Your task to perform on an android device: Open CNN.com Image 0: 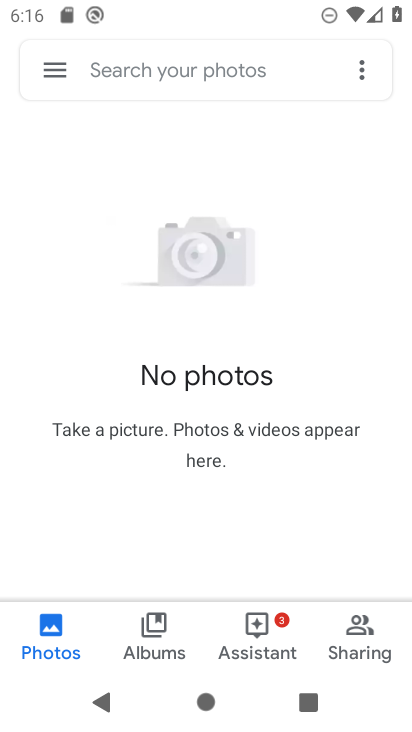
Step 0: press home button
Your task to perform on an android device: Open CNN.com Image 1: 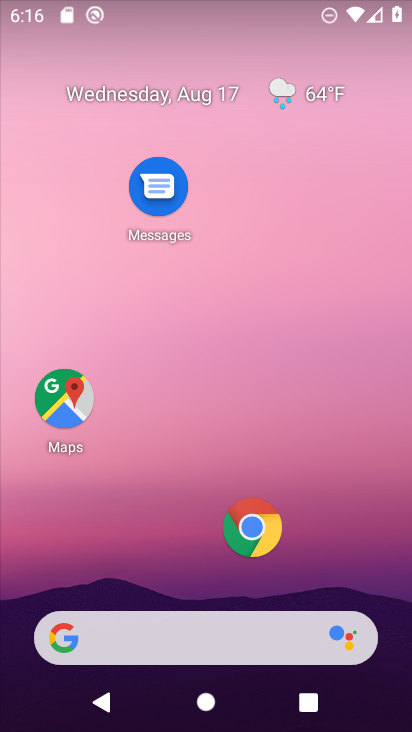
Step 1: drag from (184, 606) to (158, 334)
Your task to perform on an android device: Open CNN.com Image 2: 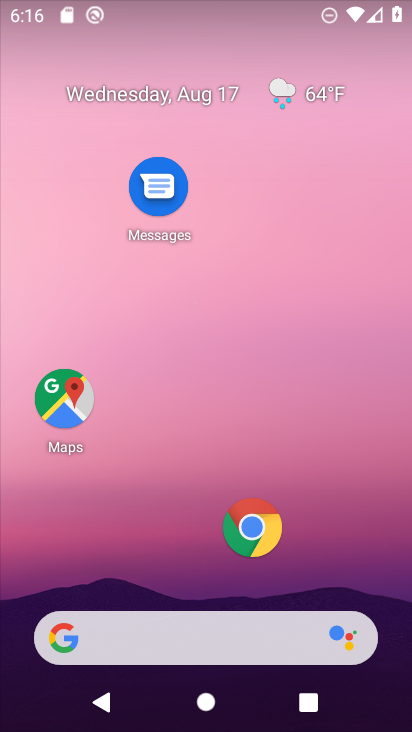
Step 2: drag from (168, 652) to (139, 240)
Your task to perform on an android device: Open CNN.com Image 3: 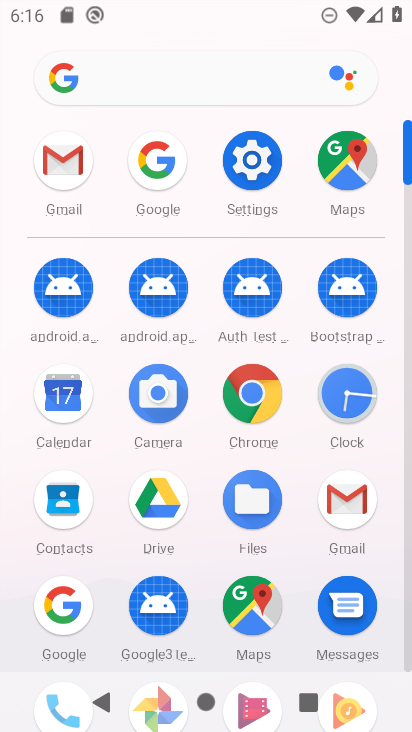
Step 3: click (58, 603)
Your task to perform on an android device: Open CNN.com Image 4: 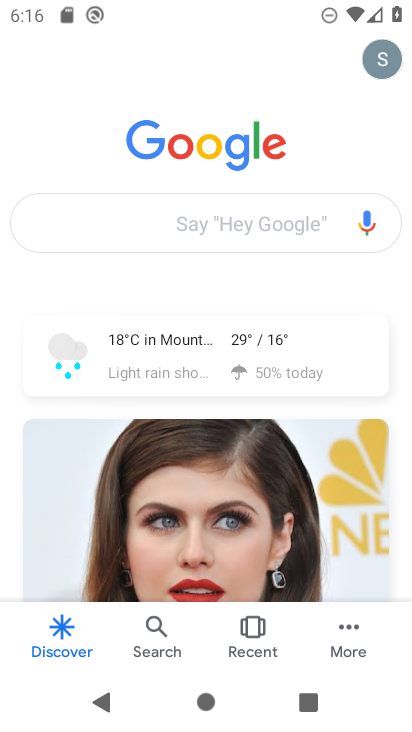
Step 4: click (159, 213)
Your task to perform on an android device: Open CNN.com Image 5: 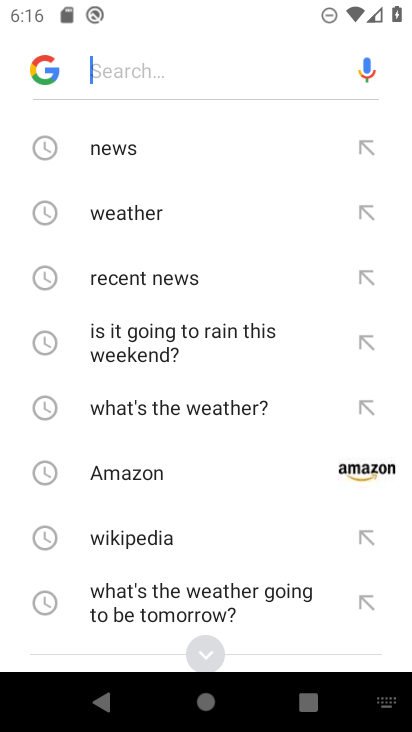
Step 5: drag from (99, 577) to (99, 357)
Your task to perform on an android device: Open CNN.com Image 6: 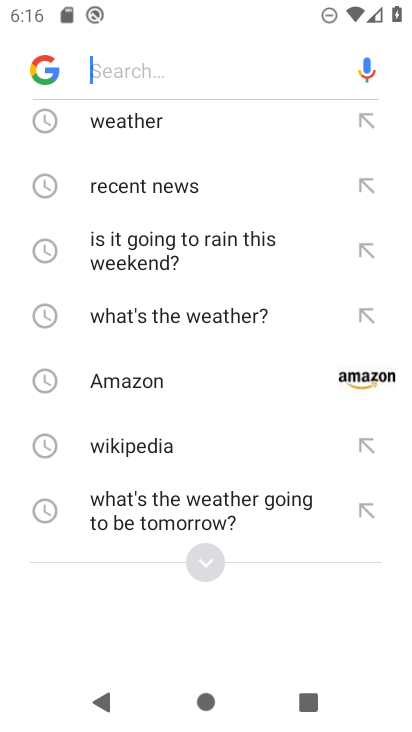
Step 6: click (193, 561)
Your task to perform on an android device: Open CNN.com Image 7: 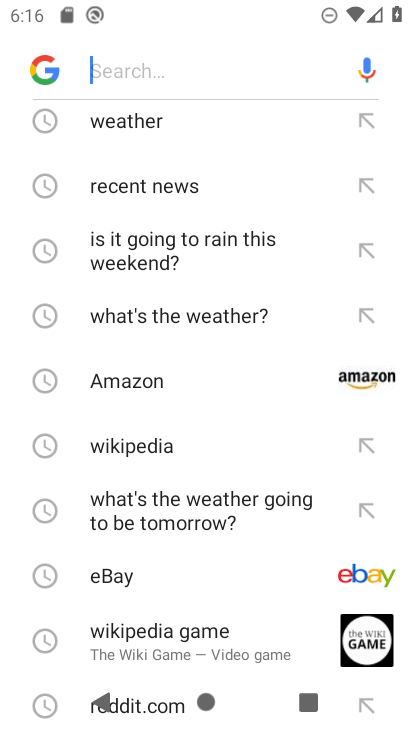
Step 7: drag from (135, 656) to (131, 503)
Your task to perform on an android device: Open CNN.com Image 8: 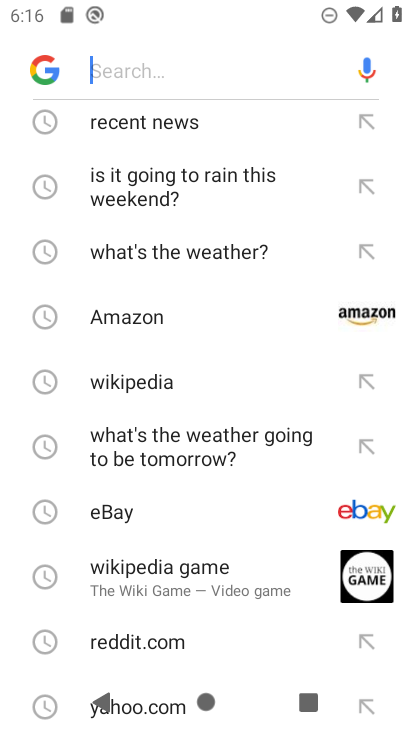
Step 8: drag from (144, 606) to (144, 358)
Your task to perform on an android device: Open CNN.com Image 9: 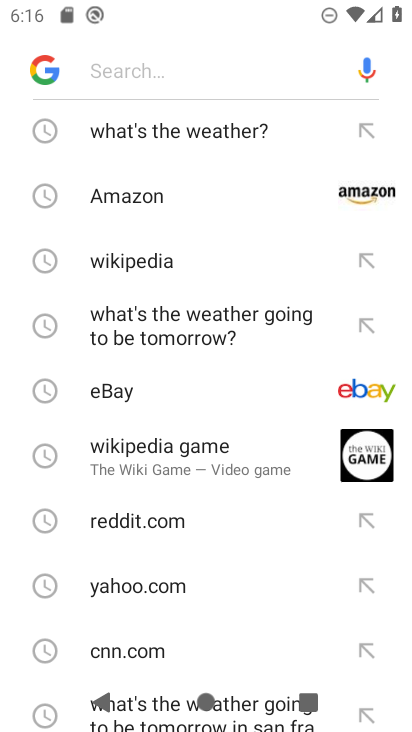
Step 9: click (137, 646)
Your task to perform on an android device: Open CNN.com Image 10: 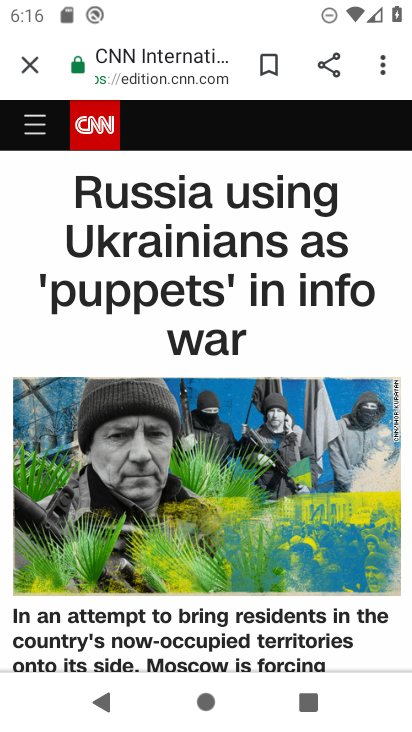
Step 10: task complete